Your task to perform on an android device: Go to sound settings Image 0: 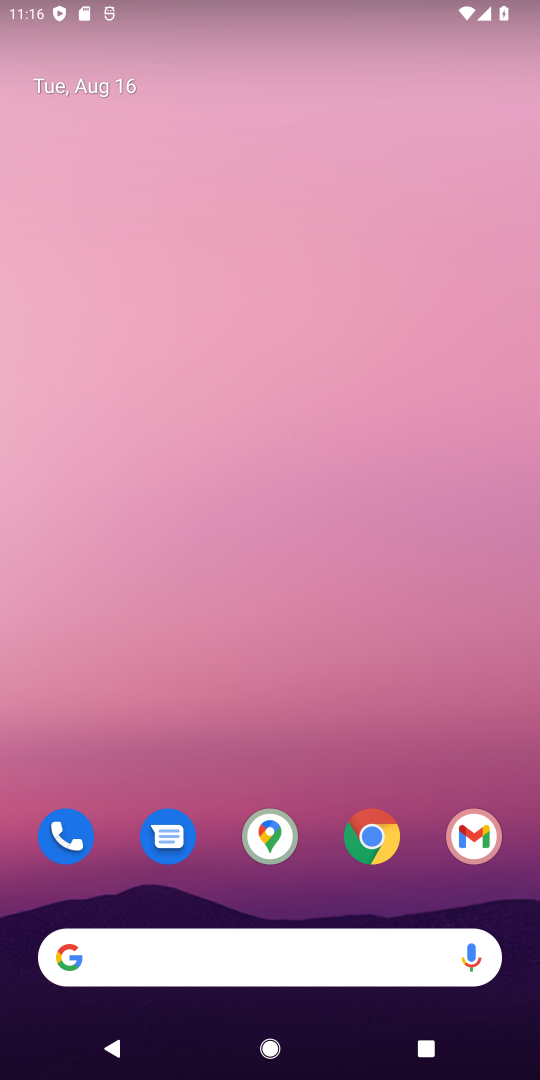
Step 0: drag from (303, 959) to (218, 216)
Your task to perform on an android device: Go to sound settings Image 1: 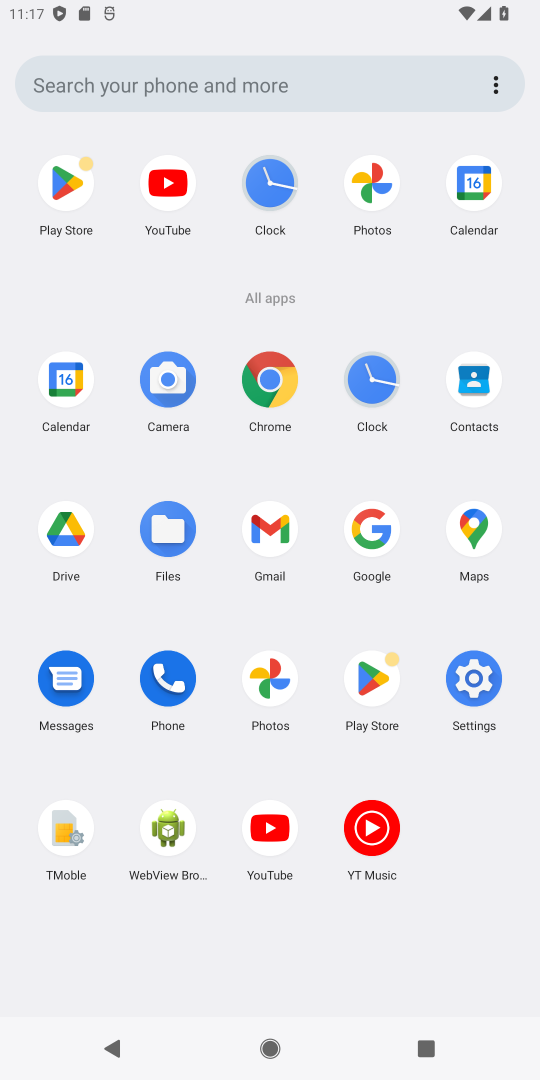
Step 1: click (469, 678)
Your task to perform on an android device: Go to sound settings Image 2: 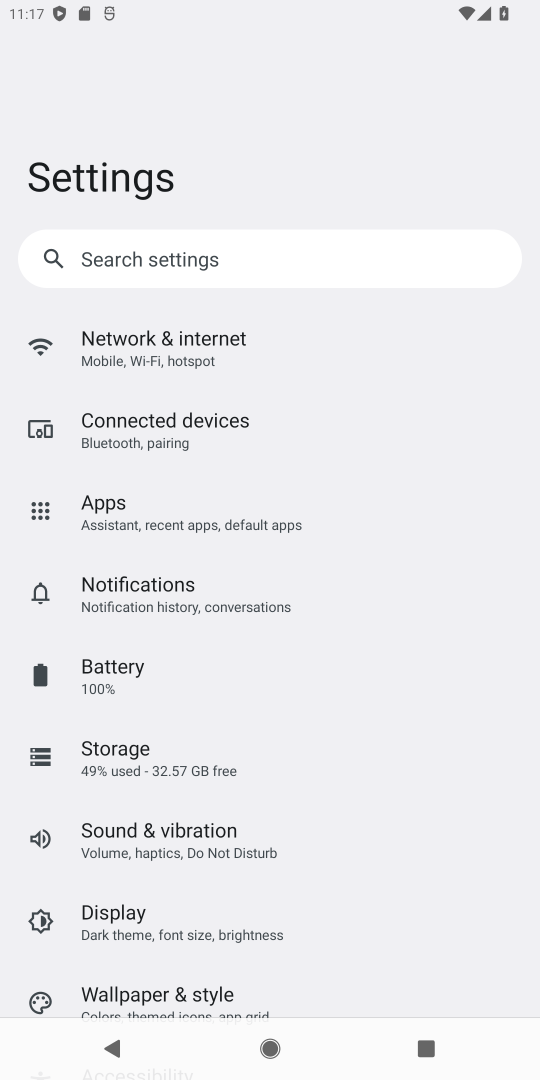
Step 2: click (165, 849)
Your task to perform on an android device: Go to sound settings Image 3: 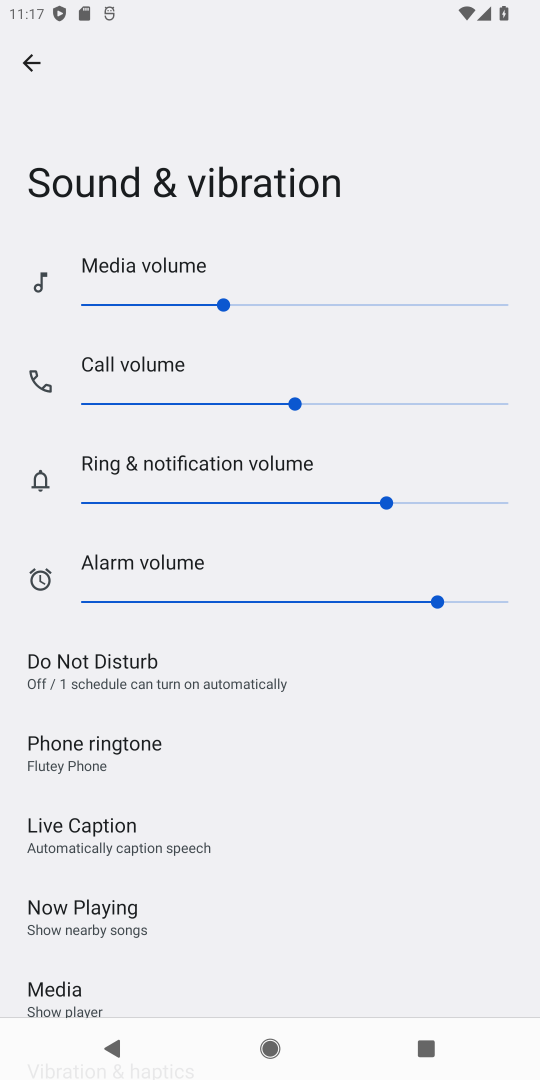
Step 3: task complete